Your task to perform on an android device: Open Wikipedia Image 0: 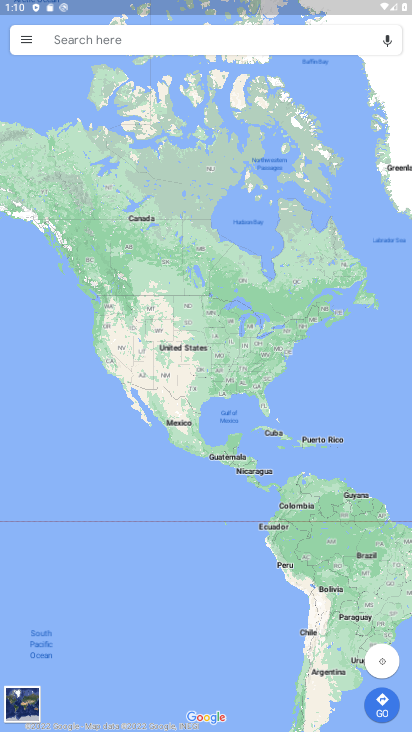
Step 0: press home button
Your task to perform on an android device: Open Wikipedia Image 1: 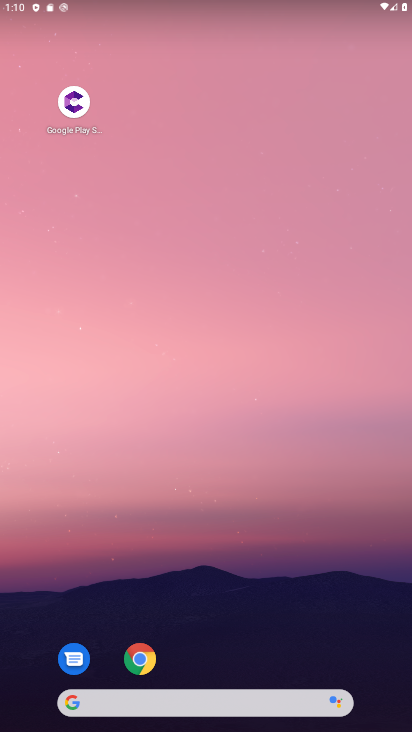
Step 1: click (148, 652)
Your task to perform on an android device: Open Wikipedia Image 2: 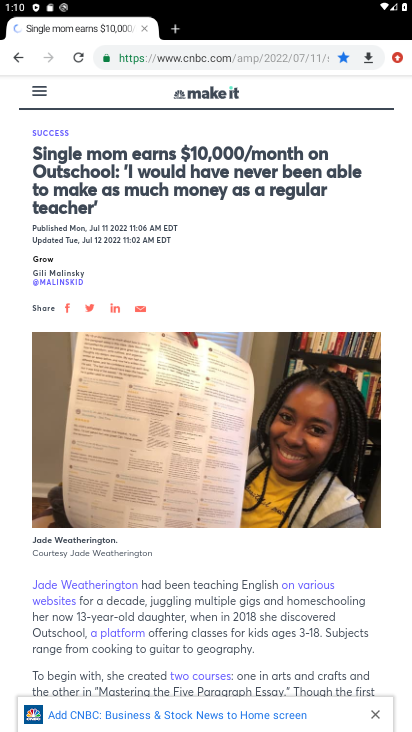
Step 2: click (180, 26)
Your task to perform on an android device: Open Wikipedia Image 3: 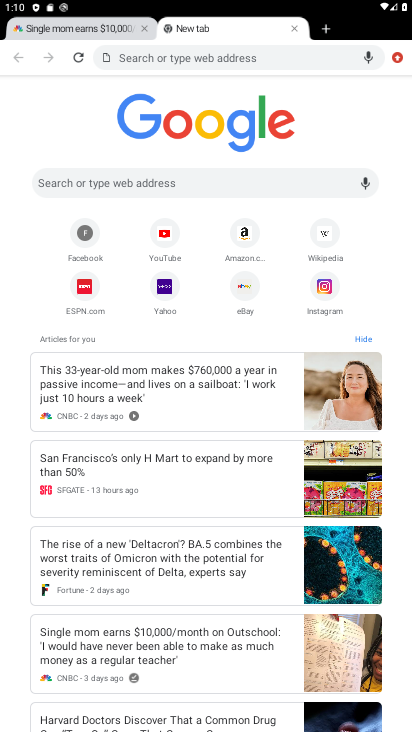
Step 3: click (318, 241)
Your task to perform on an android device: Open Wikipedia Image 4: 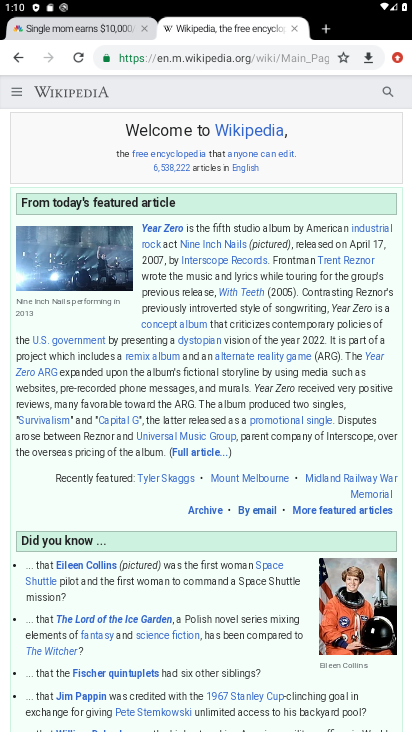
Step 4: task complete